Your task to perform on an android device: toggle pop-ups in chrome Image 0: 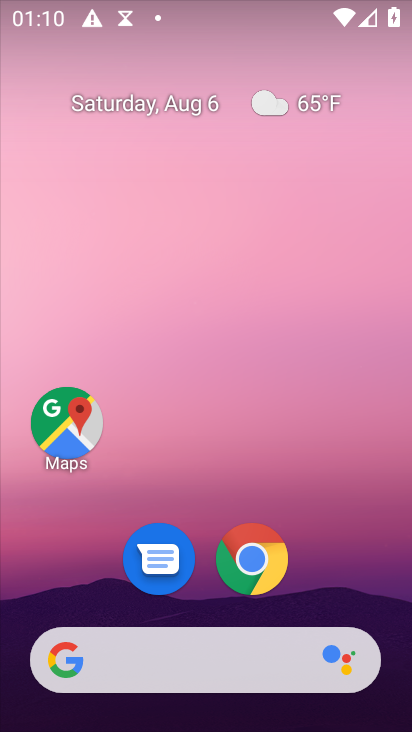
Step 0: click (265, 553)
Your task to perform on an android device: toggle pop-ups in chrome Image 1: 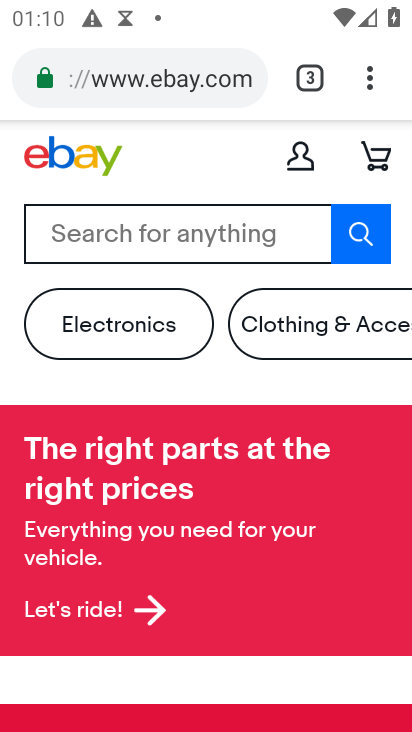
Step 1: click (371, 72)
Your task to perform on an android device: toggle pop-ups in chrome Image 2: 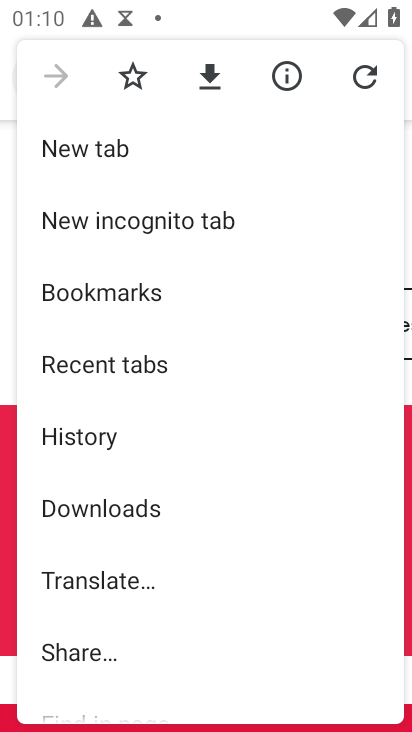
Step 2: drag from (287, 683) to (223, 258)
Your task to perform on an android device: toggle pop-ups in chrome Image 3: 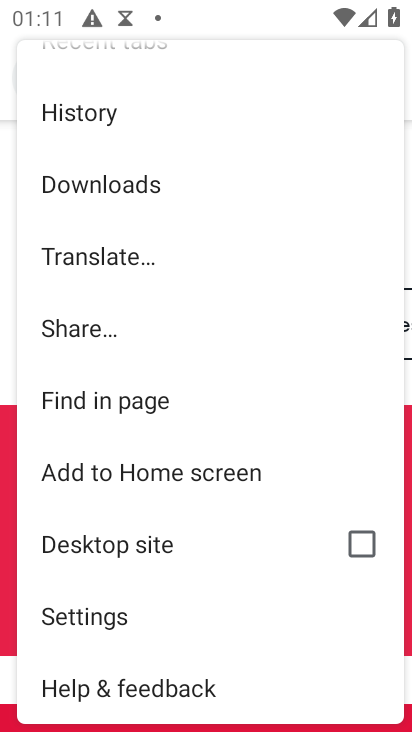
Step 3: click (204, 614)
Your task to perform on an android device: toggle pop-ups in chrome Image 4: 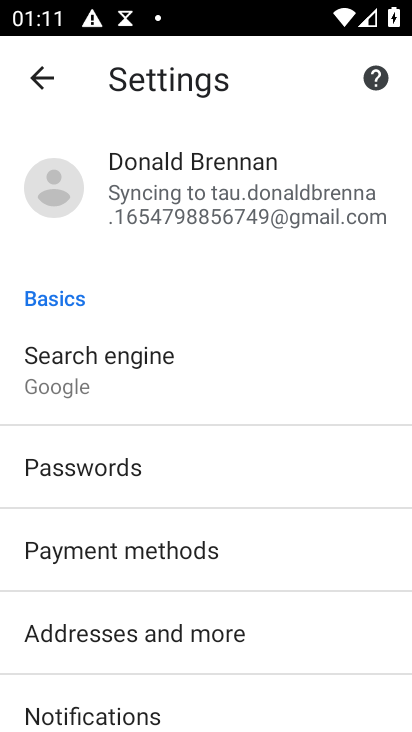
Step 4: drag from (313, 682) to (213, 114)
Your task to perform on an android device: toggle pop-ups in chrome Image 5: 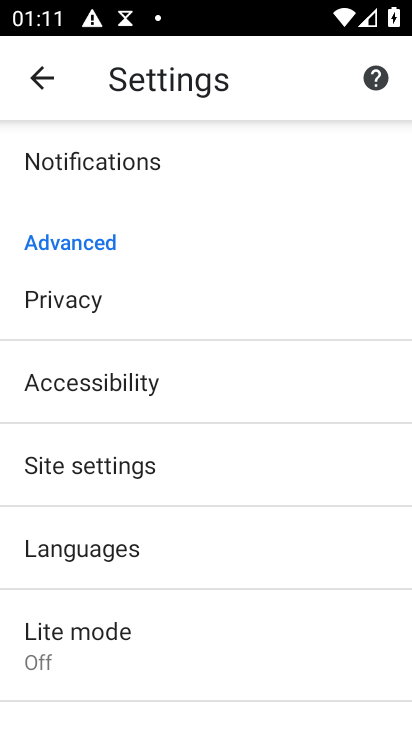
Step 5: click (223, 438)
Your task to perform on an android device: toggle pop-ups in chrome Image 6: 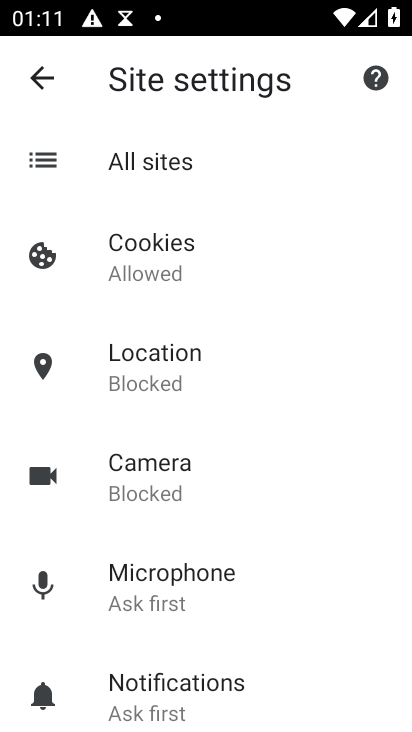
Step 6: drag from (249, 669) to (209, 49)
Your task to perform on an android device: toggle pop-ups in chrome Image 7: 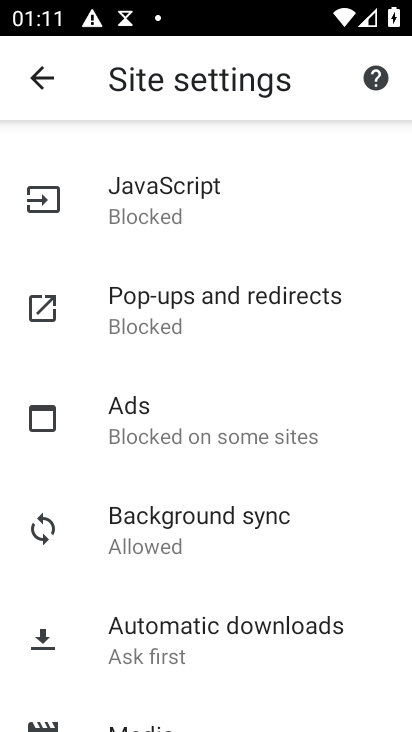
Step 7: click (282, 310)
Your task to perform on an android device: toggle pop-ups in chrome Image 8: 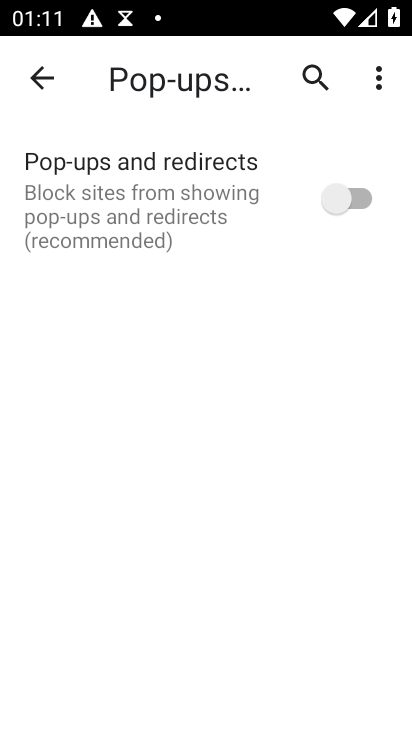
Step 8: click (362, 211)
Your task to perform on an android device: toggle pop-ups in chrome Image 9: 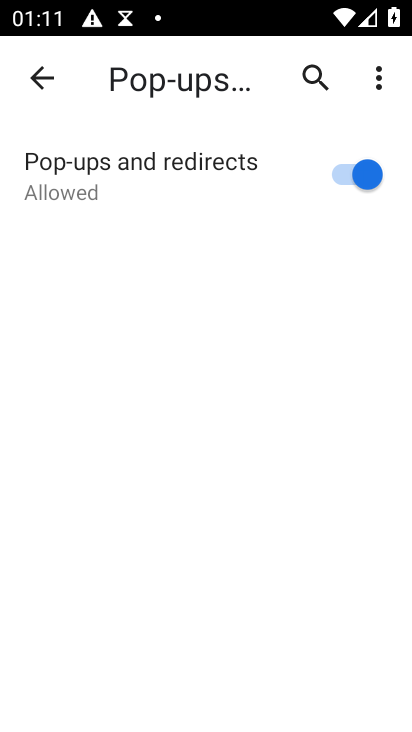
Step 9: task complete